Your task to perform on an android device: Open notification settings Image 0: 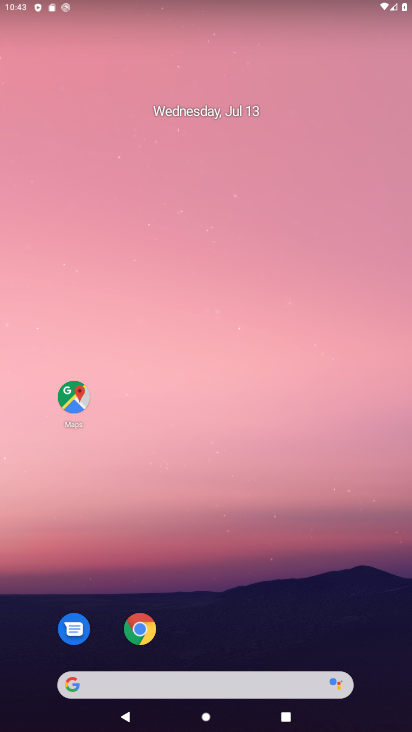
Step 0: drag from (230, 722) to (205, 213)
Your task to perform on an android device: Open notification settings Image 1: 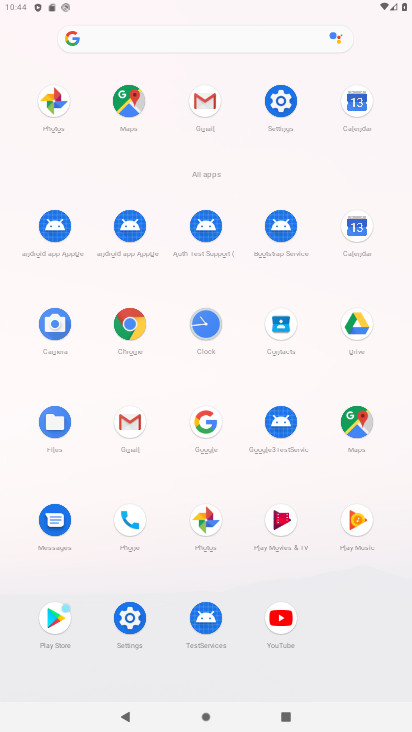
Step 1: click (284, 100)
Your task to perform on an android device: Open notification settings Image 2: 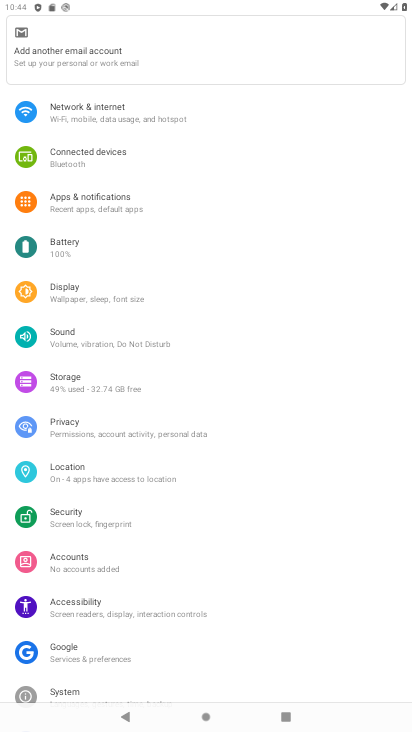
Step 2: click (90, 195)
Your task to perform on an android device: Open notification settings Image 3: 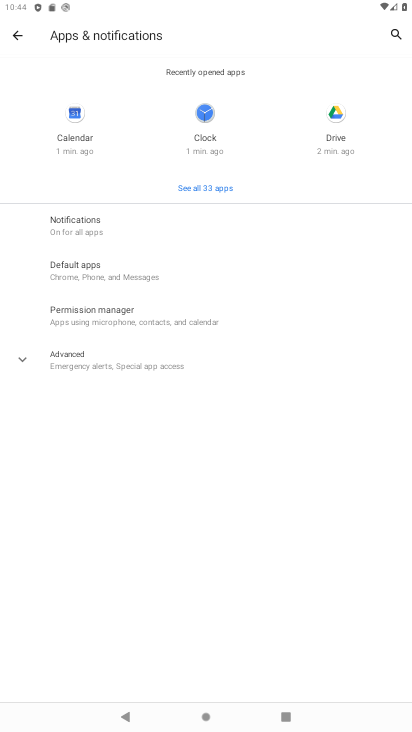
Step 3: click (89, 220)
Your task to perform on an android device: Open notification settings Image 4: 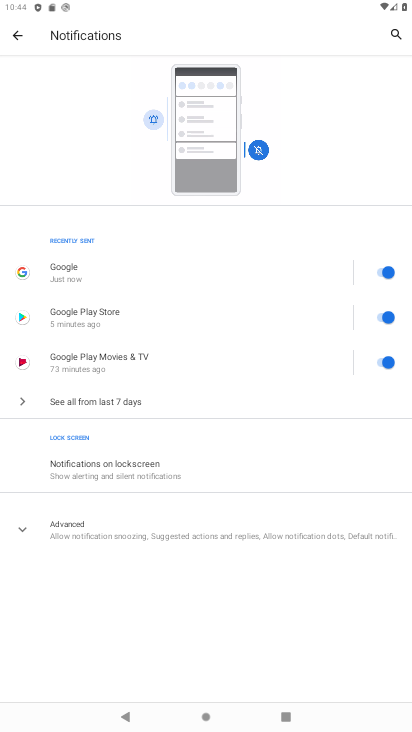
Step 4: task complete